Your task to perform on an android device: search for accent chairs on article.com Image 0: 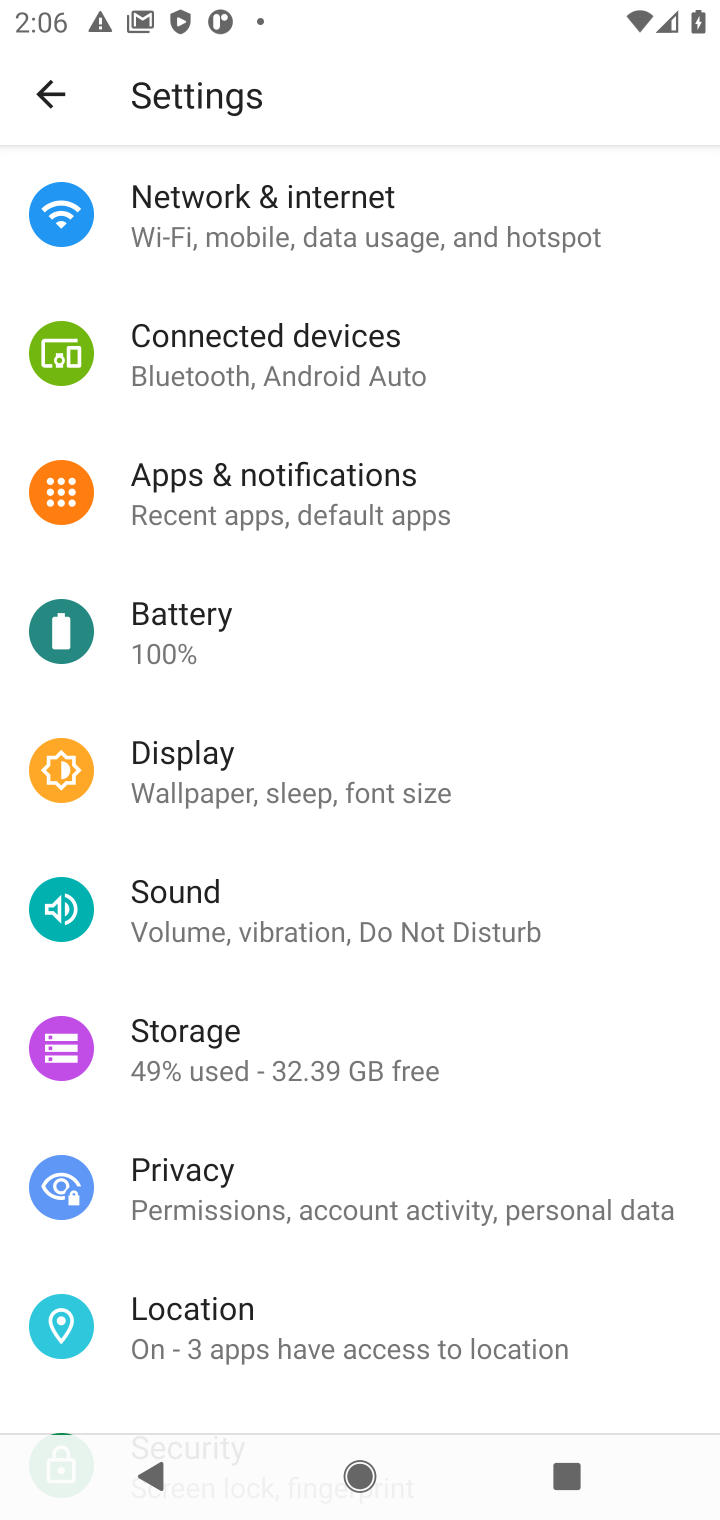
Step 0: press home button
Your task to perform on an android device: search for accent chairs on article.com Image 1: 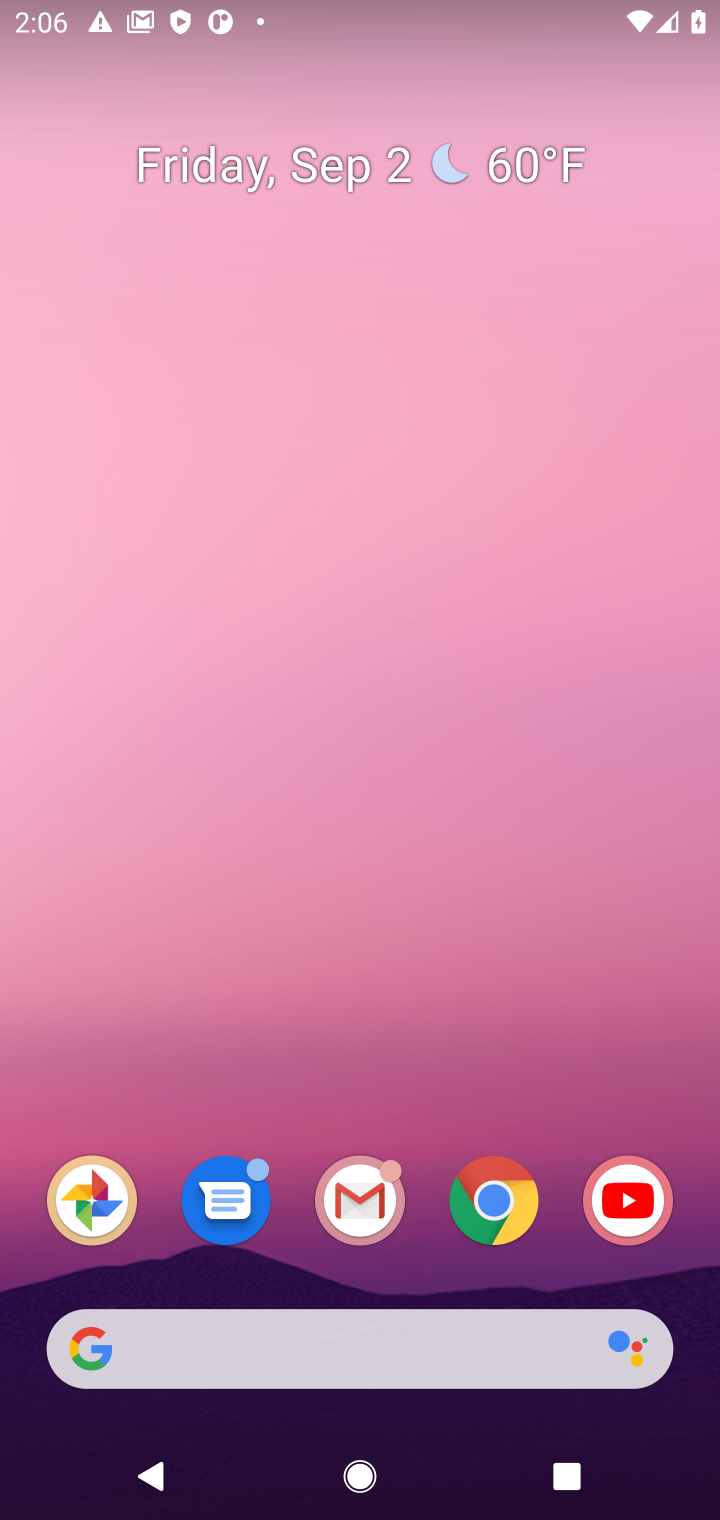
Step 1: click (490, 1203)
Your task to perform on an android device: search for accent chairs on article.com Image 2: 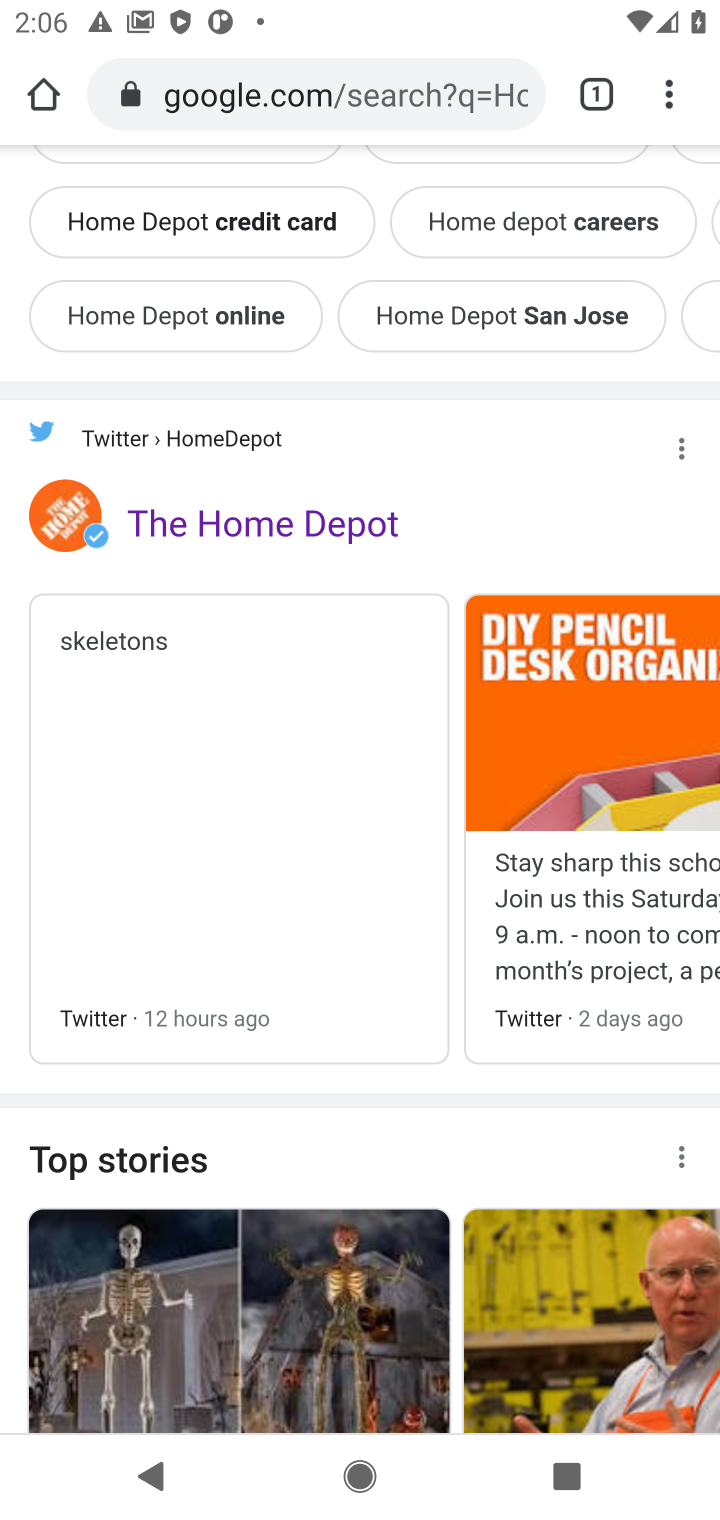
Step 2: click (409, 92)
Your task to perform on an android device: search for accent chairs on article.com Image 3: 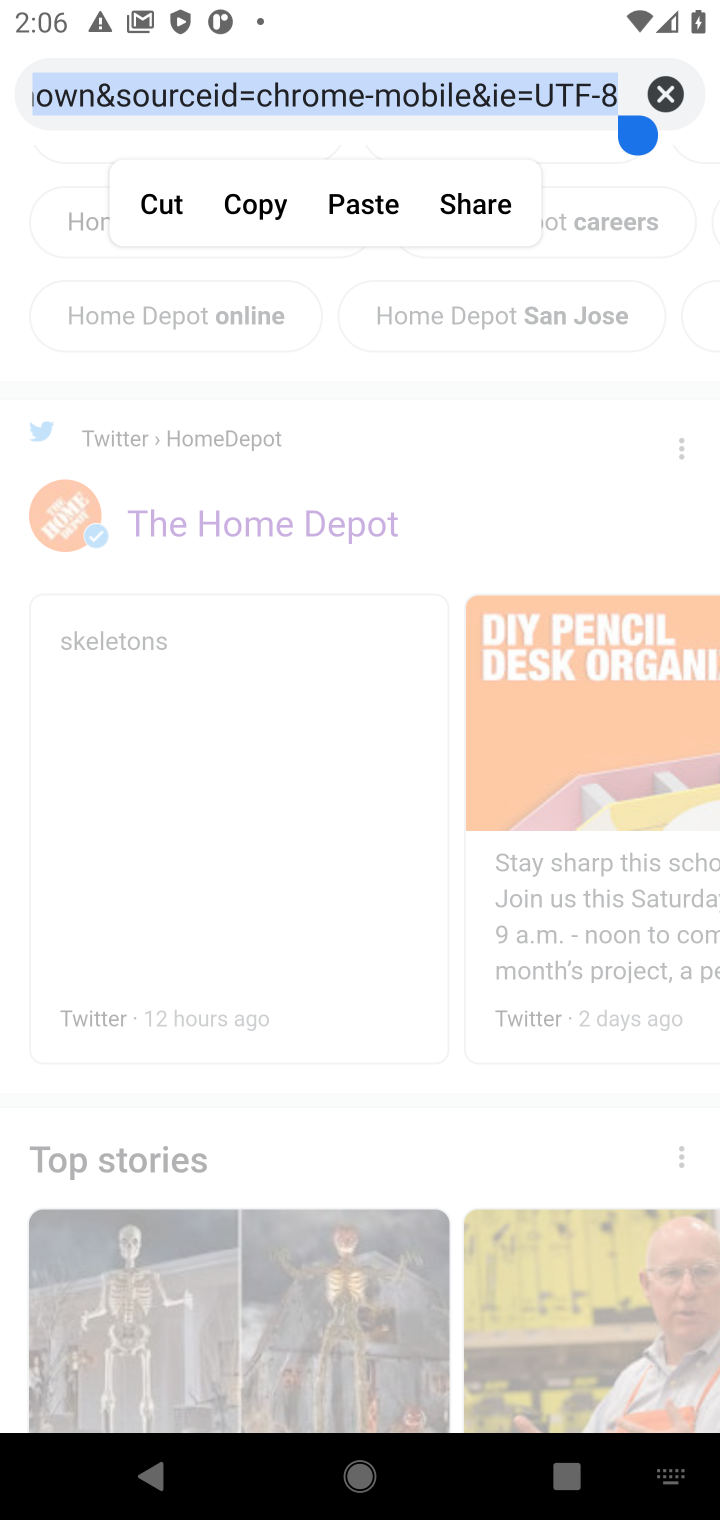
Step 3: click (661, 82)
Your task to perform on an android device: search for accent chairs on article.com Image 4: 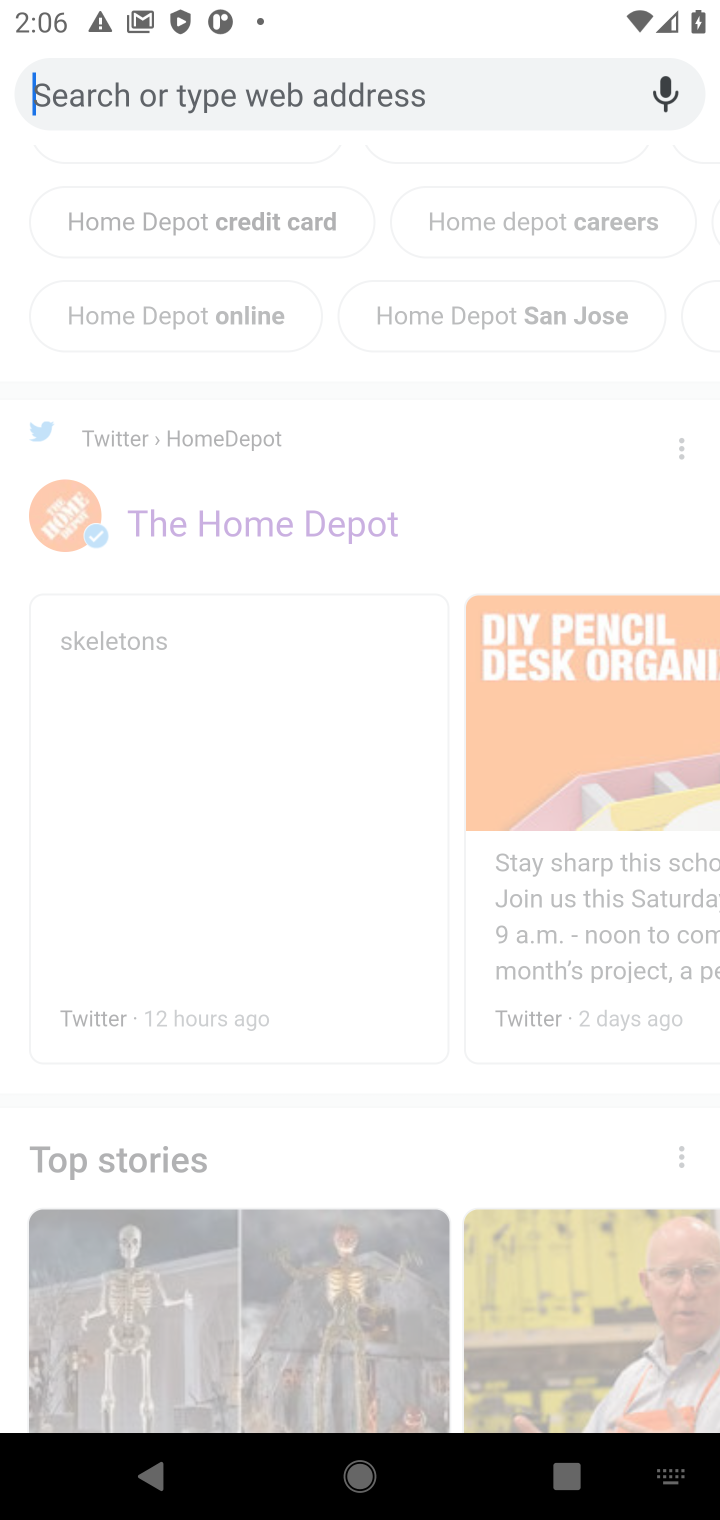
Step 4: press enter
Your task to perform on an android device: search for accent chairs on article.com Image 5: 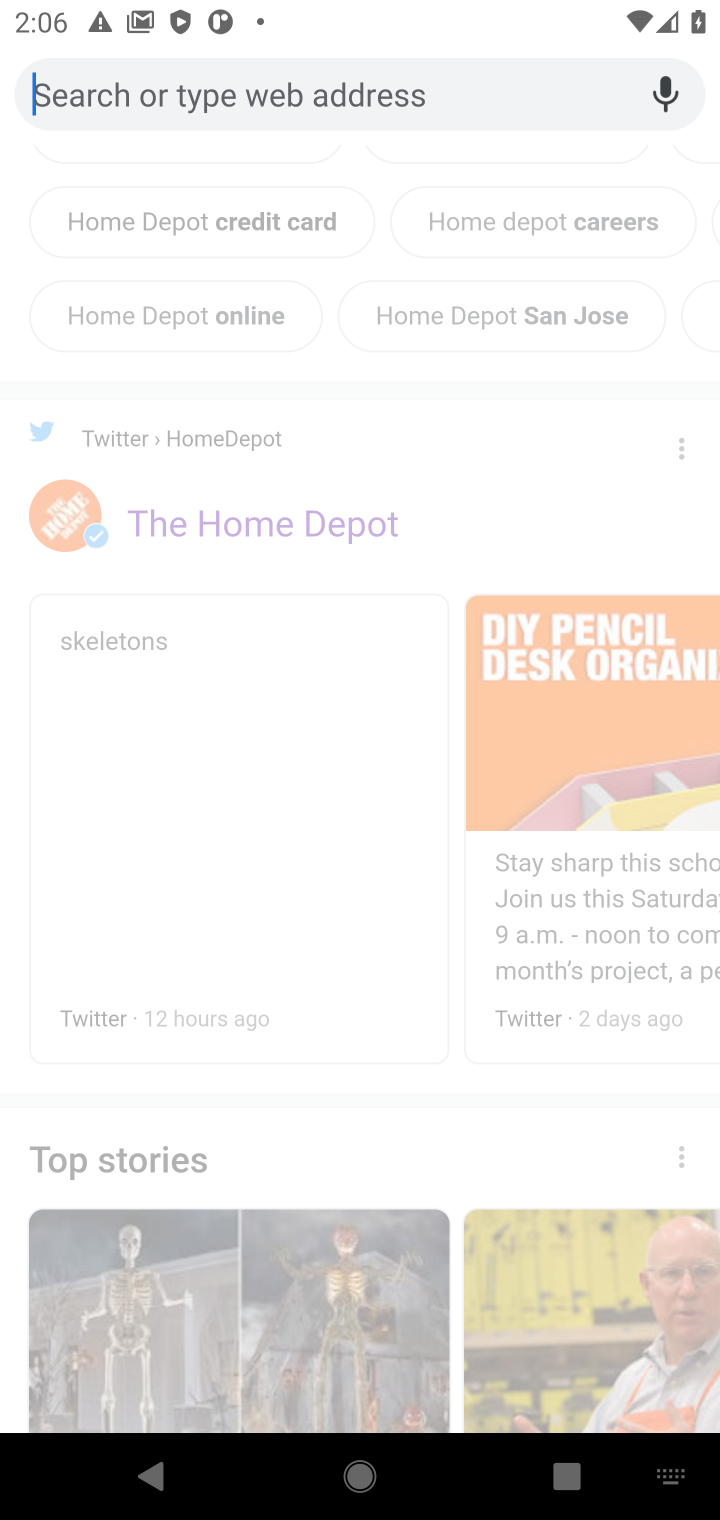
Step 5: type "article.com"
Your task to perform on an android device: search for accent chairs on article.com Image 6: 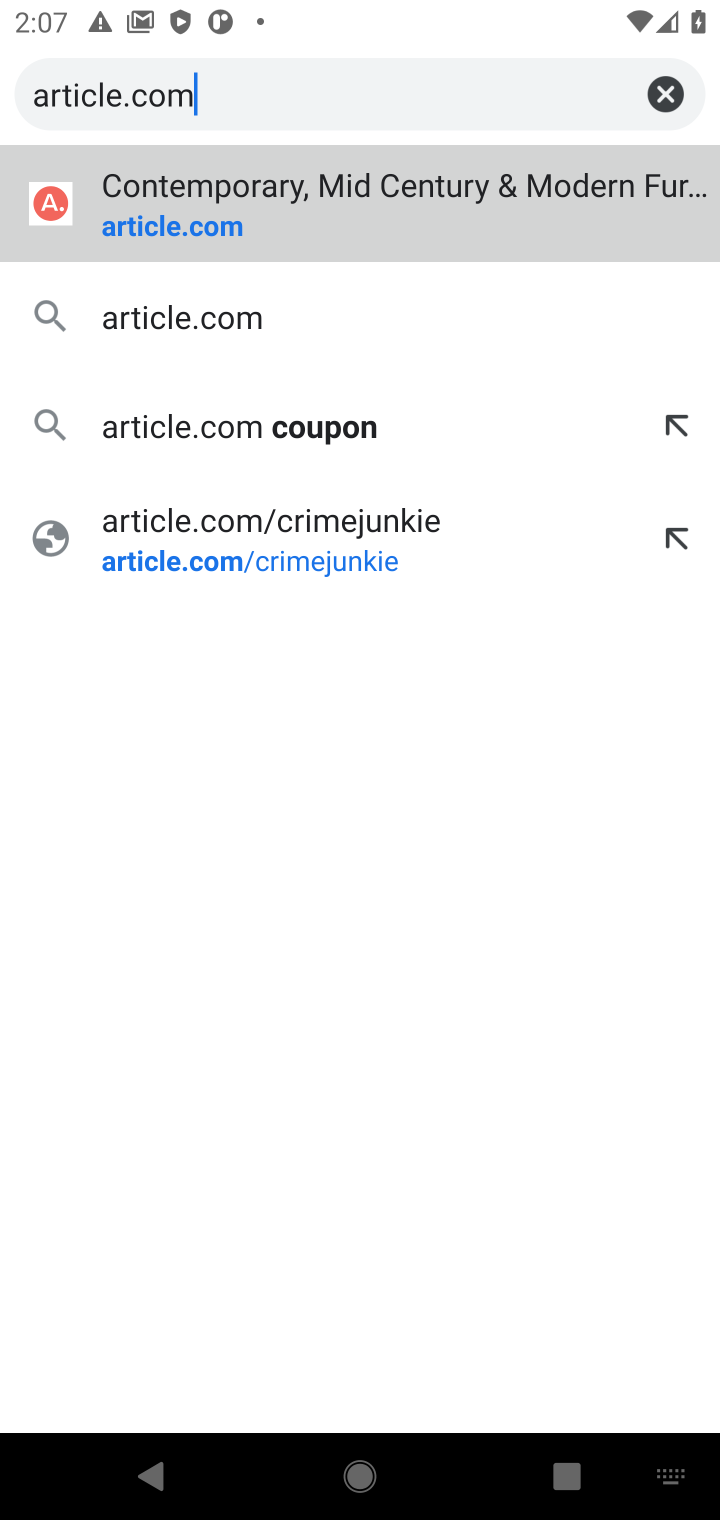
Step 6: click (205, 316)
Your task to perform on an android device: search for accent chairs on article.com Image 7: 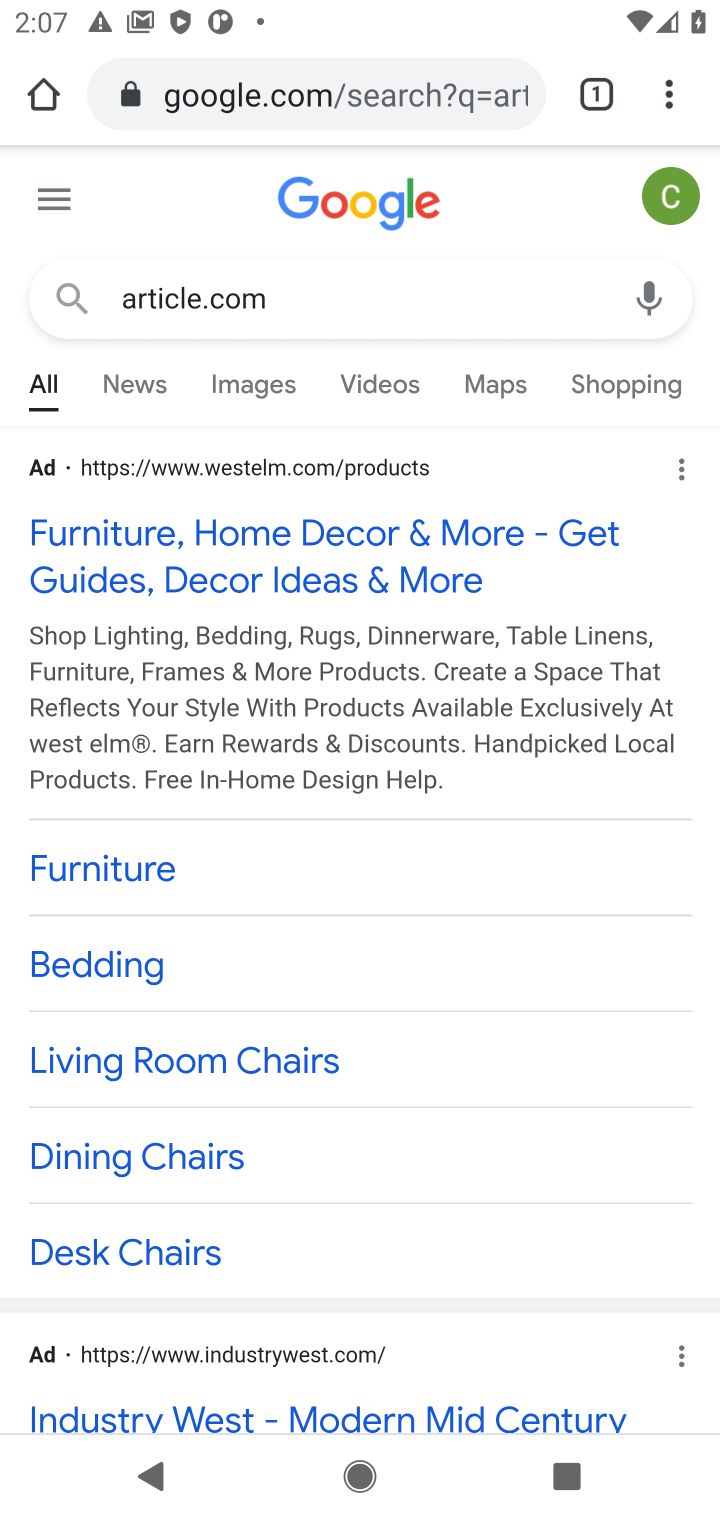
Step 7: drag from (333, 1089) to (553, 271)
Your task to perform on an android device: search for accent chairs on article.com Image 8: 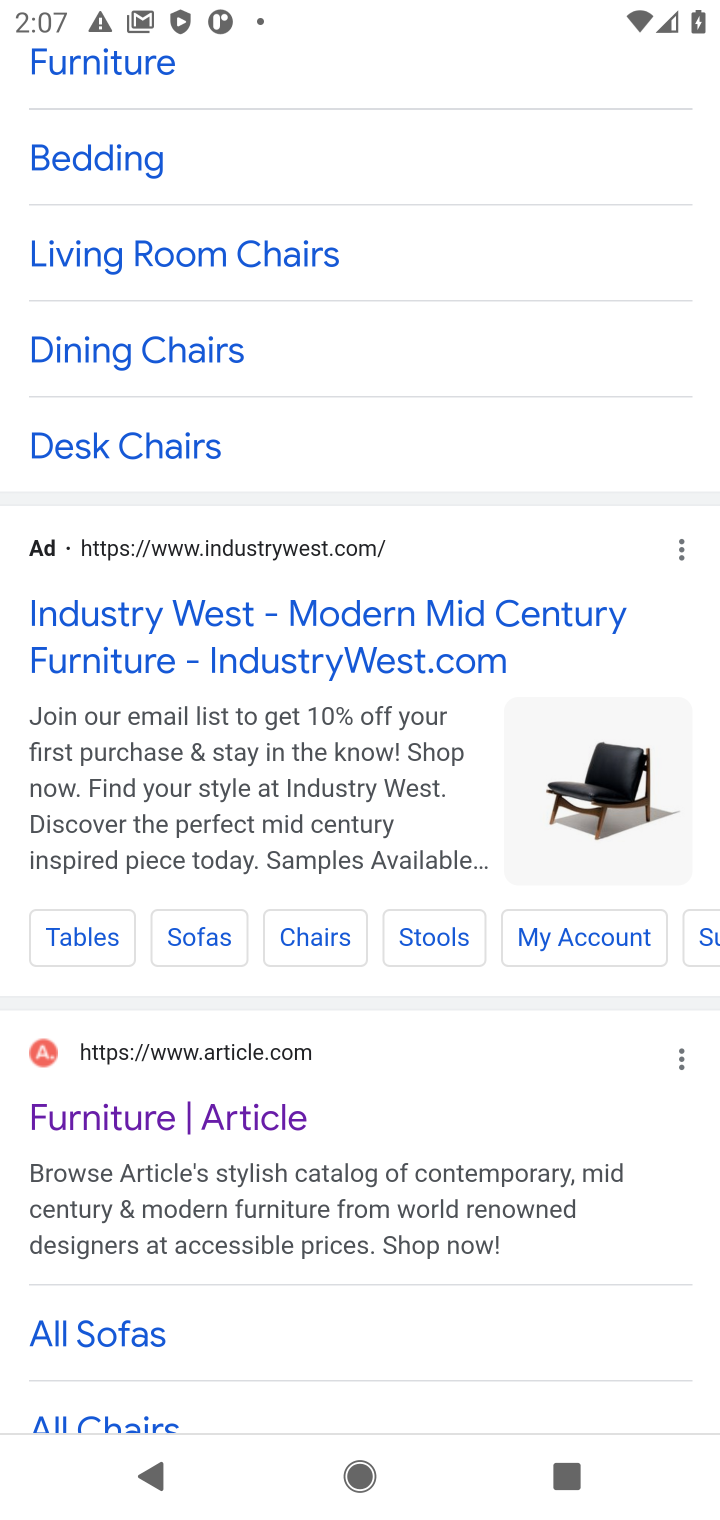
Step 8: drag from (314, 1300) to (543, 701)
Your task to perform on an android device: search for accent chairs on article.com Image 9: 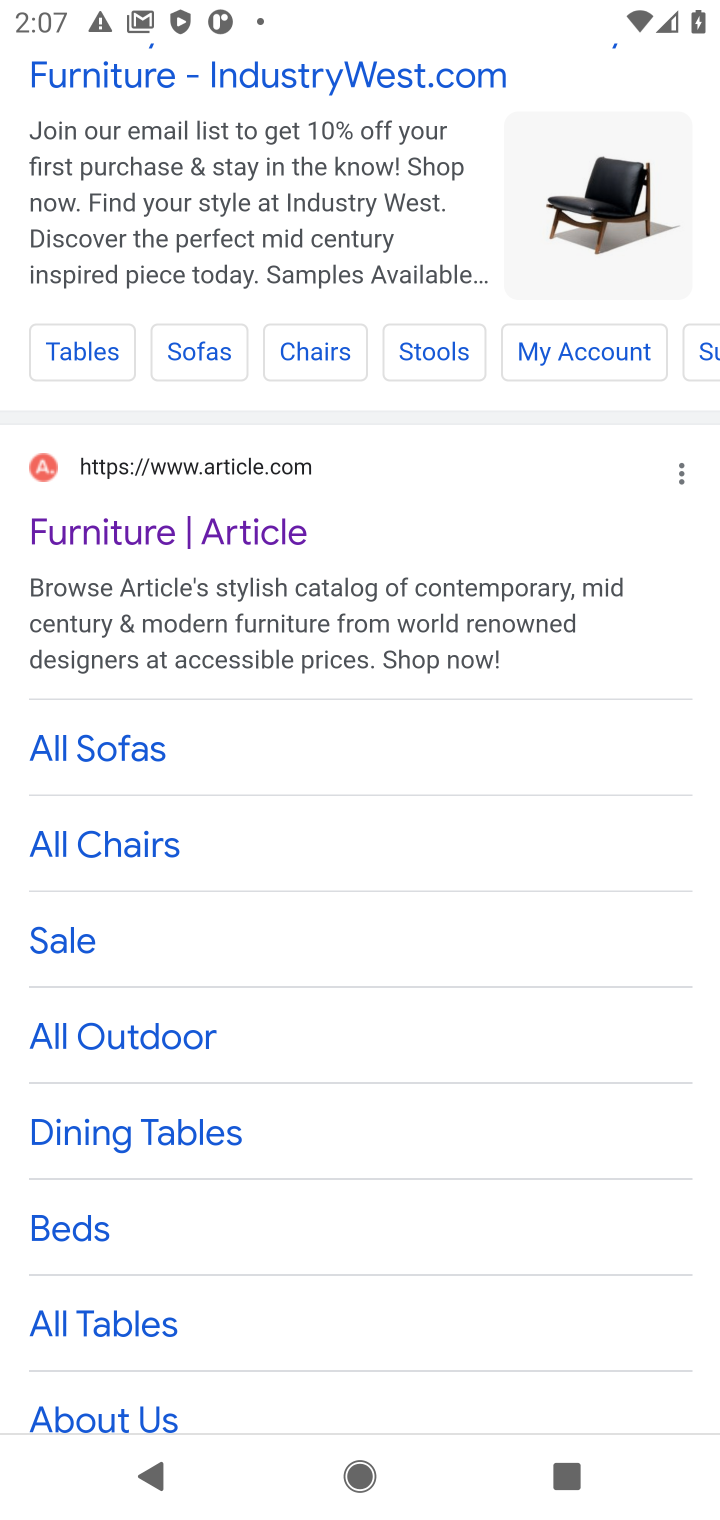
Step 9: click (211, 1116)
Your task to perform on an android device: search for accent chairs on article.com Image 10: 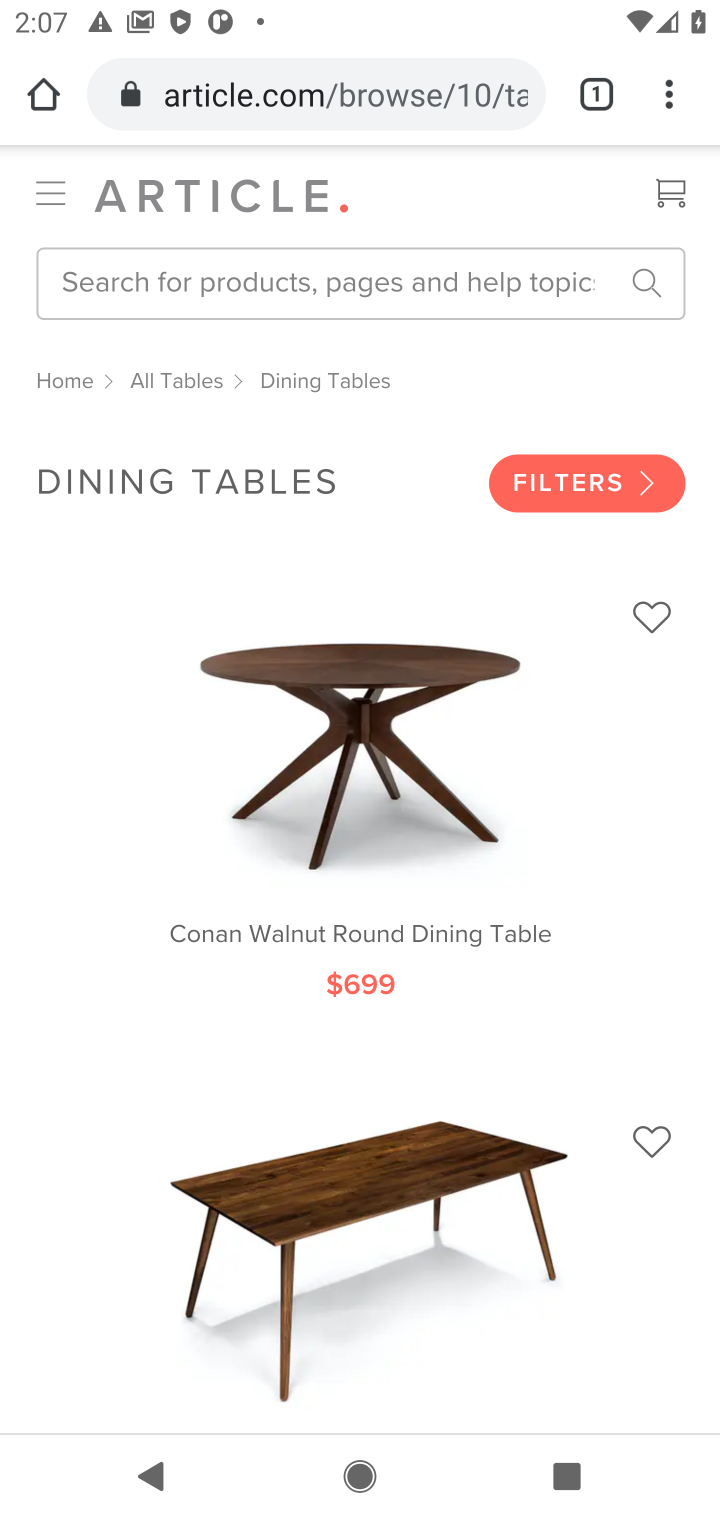
Step 10: click (365, 276)
Your task to perform on an android device: search for accent chairs on article.com Image 11: 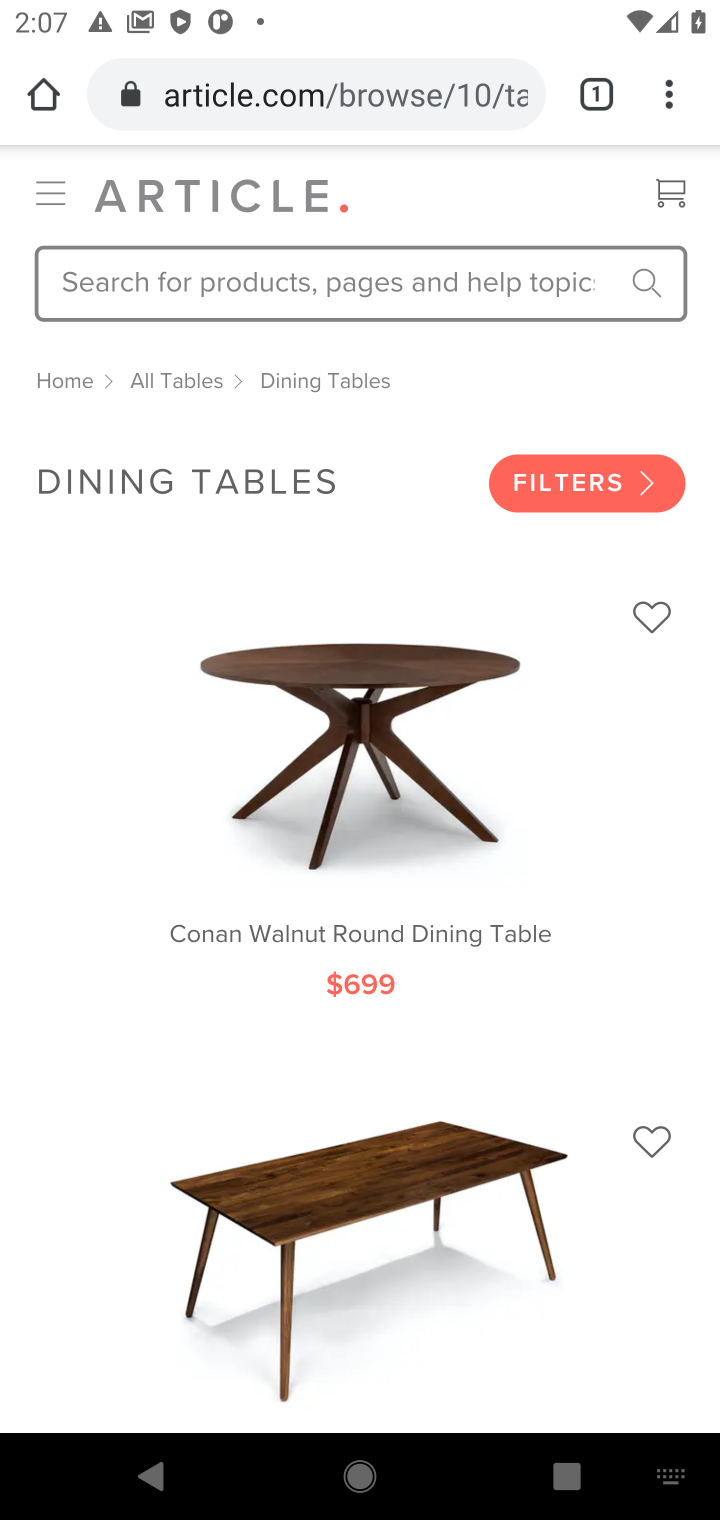
Step 11: click (491, 273)
Your task to perform on an android device: search for accent chairs on article.com Image 12: 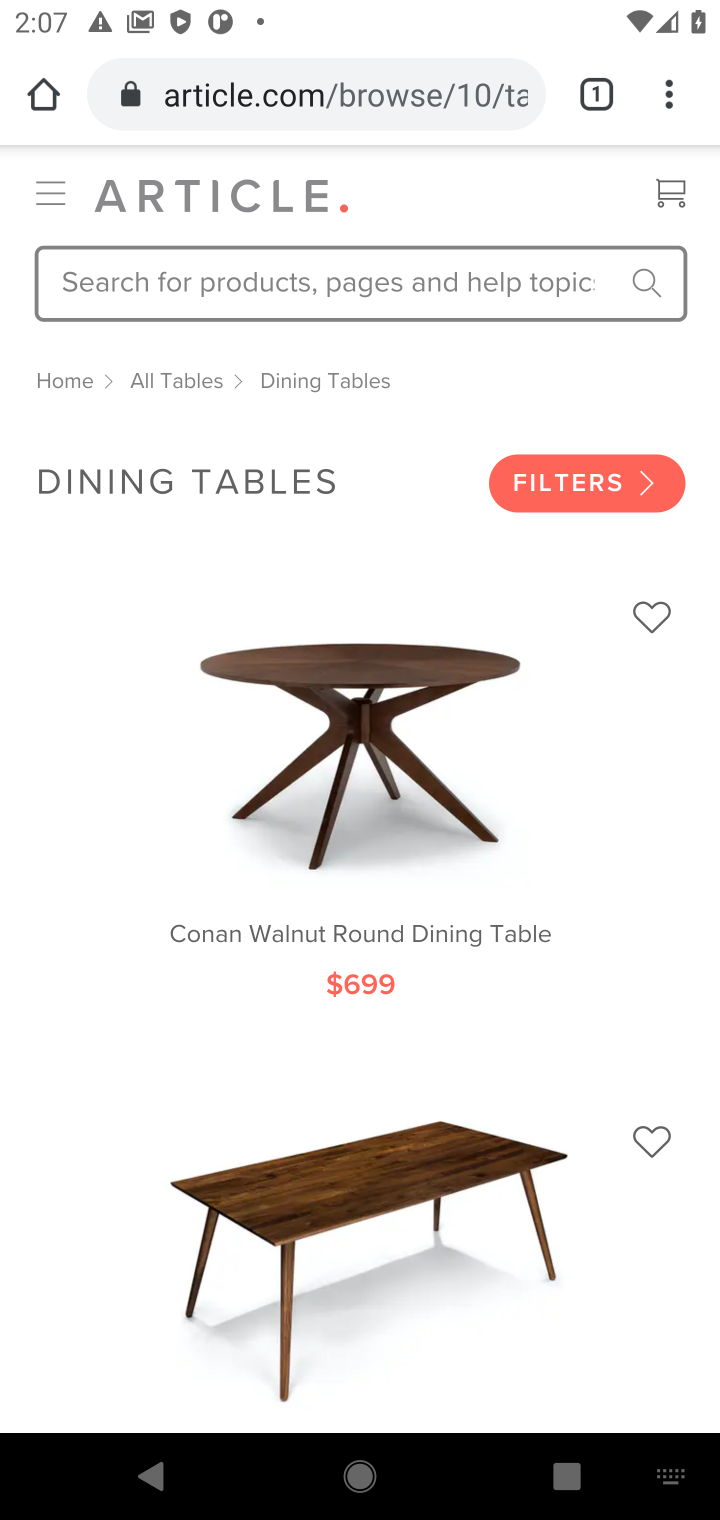
Step 12: type "accent chairs"
Your task to perform on an android device: search for accent chairs on article.com Image 13: 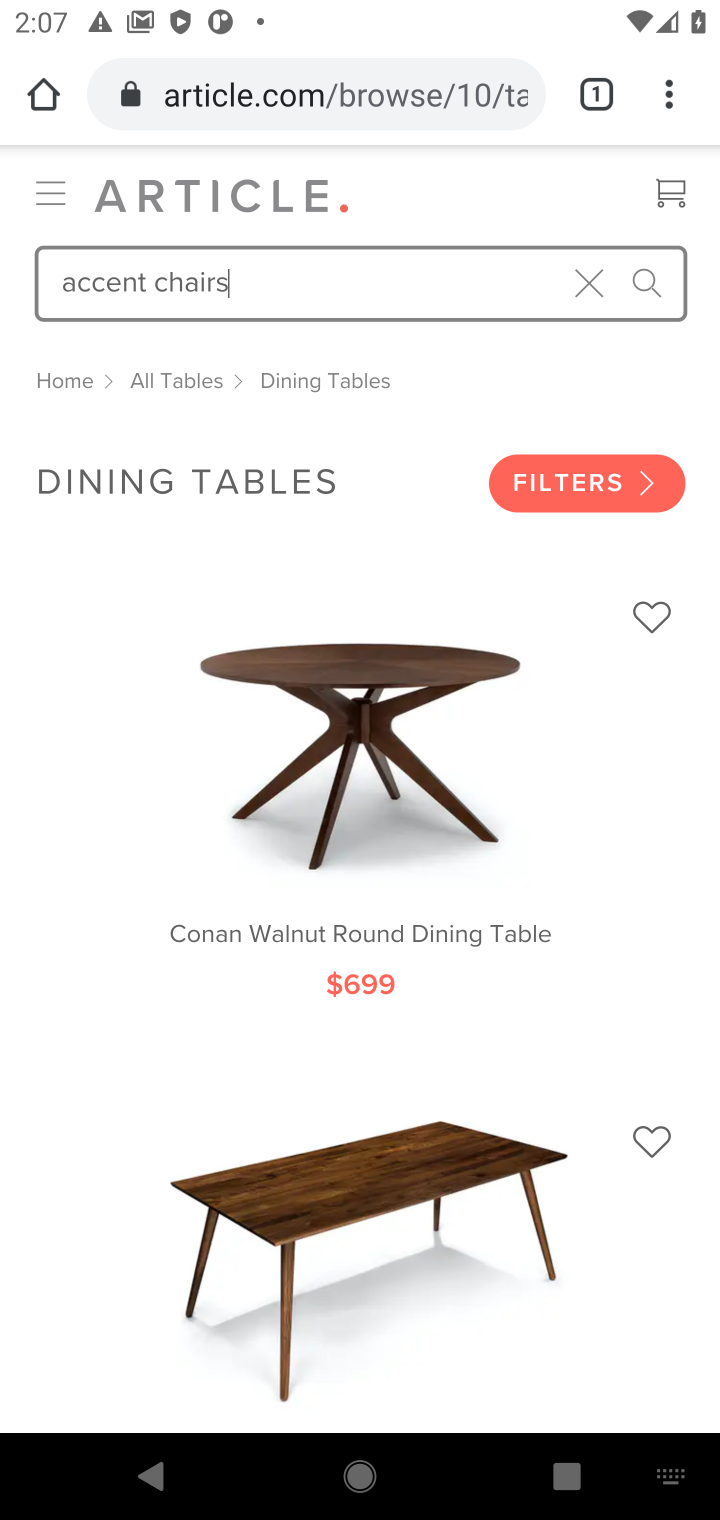
Step 13: press enter
Your task to perform on an android device: search for accent chairs on article.com Image 14: 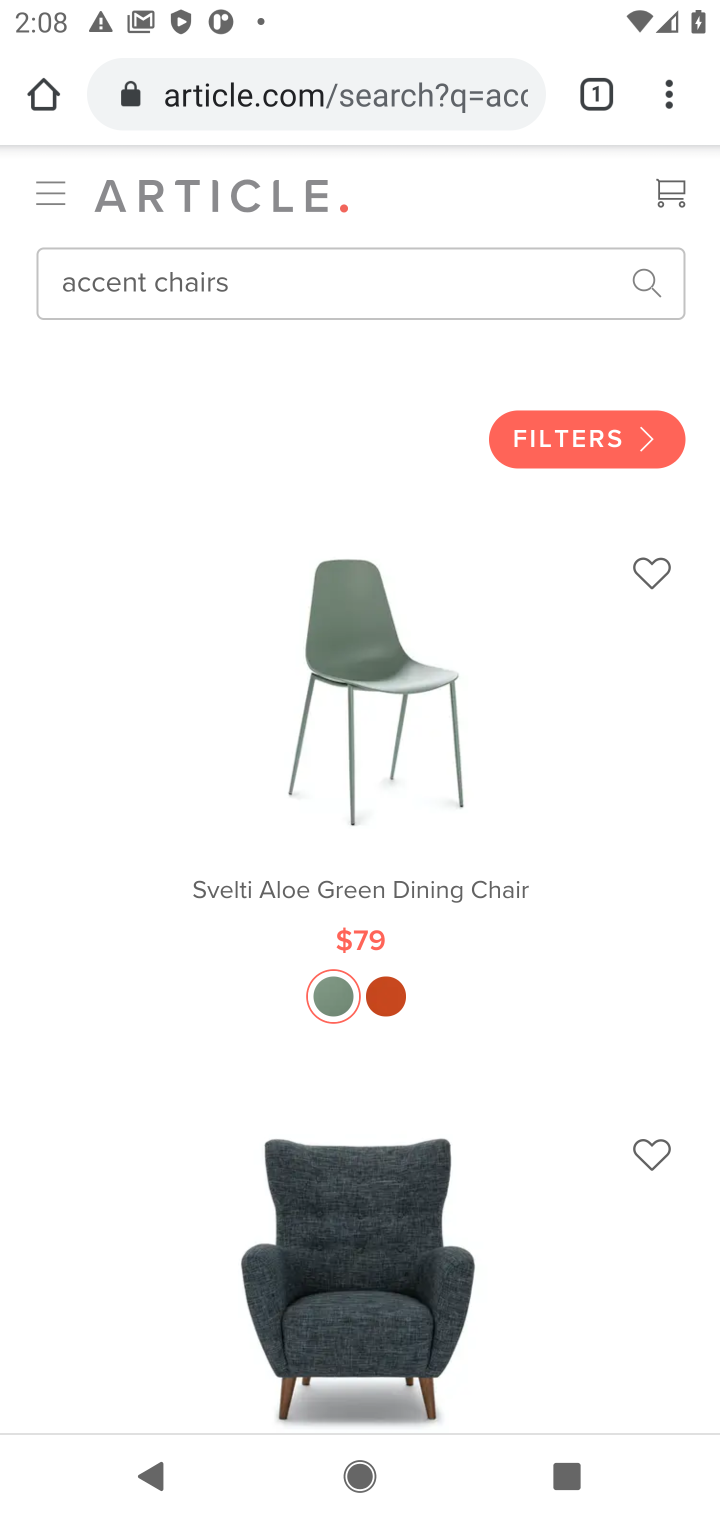
Step 14: task complete